Your task to perform on an android device: What's the weather going to be this weekend? Image 0: 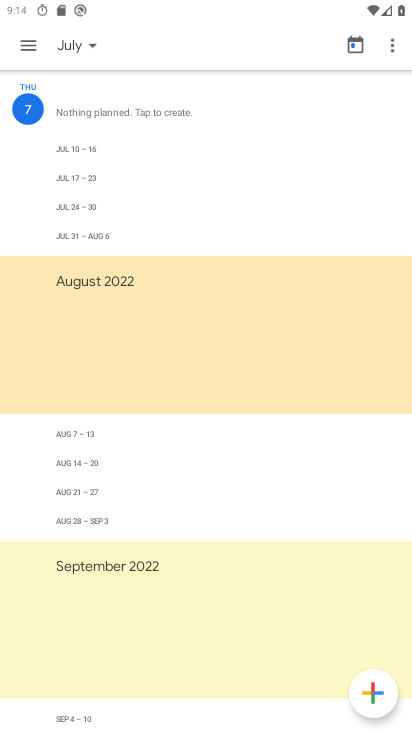
Step 0: press home button
Your task to perform on an android device: What's the weather going to be this weekend? Image 1: 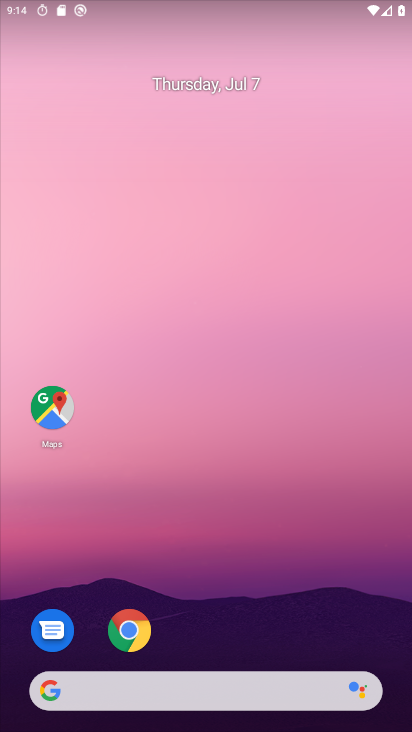
Step 1: click (84, 692)
Your task to perform on an android device: What's the weather going to be this weekend? Image 2: 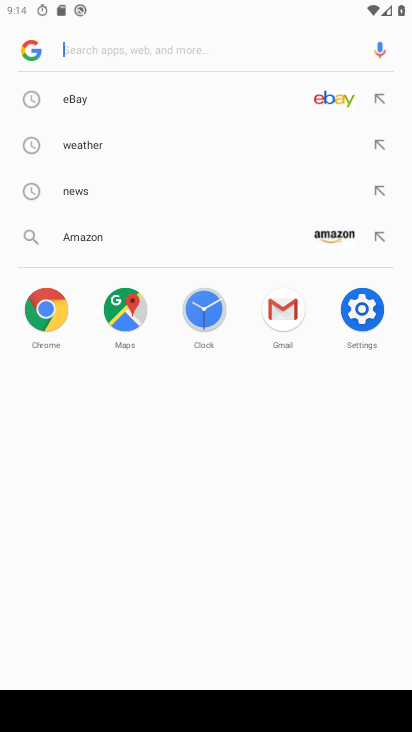
Step 2: type "What's the weather going to be this weekend?"
Your task to perform on an android device: What's the weather going to be this weekend? Image 3: 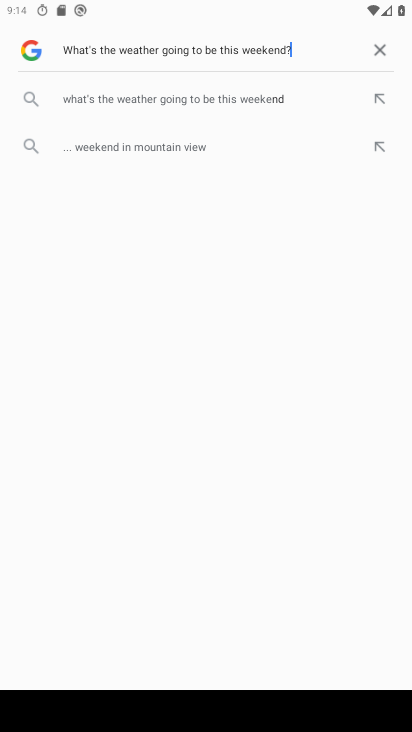
Step 3: type ""
Your task to perform on an android device: What's the weather going to be this weekend? Image 4: 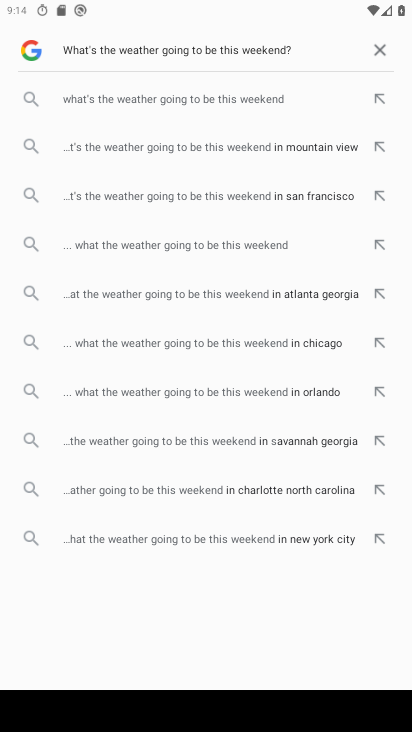
Step 4: click (169, 95)
Your task to perform on an android device: What's the weather going to be this weekend? Image 5: 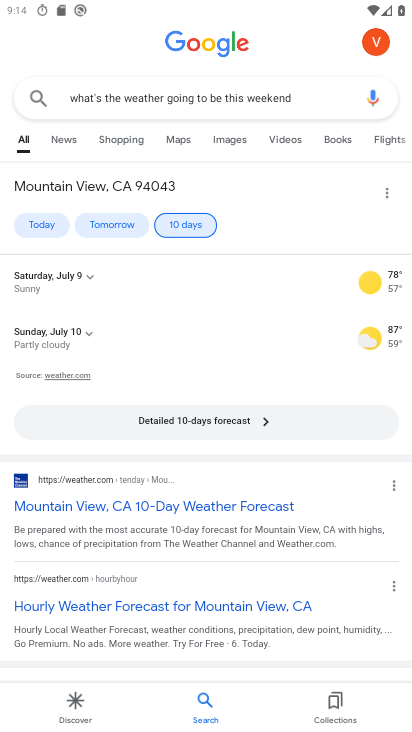
Step 5: task complete